Your task to perform on an android device: Open network settings Image 0: 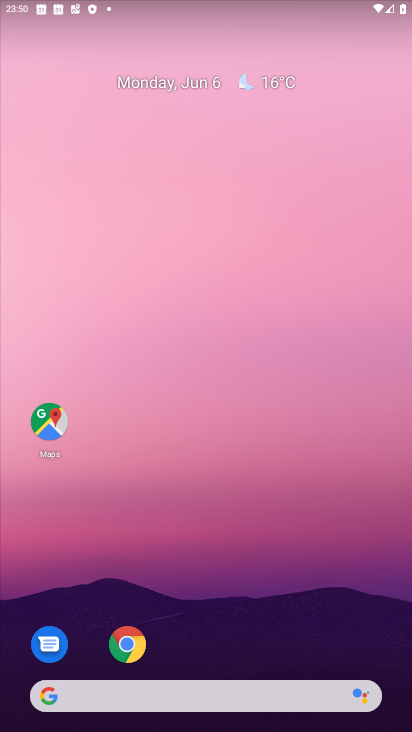
Step 0: drag from (235, 580) to (225, 41)
Your task to perform on an android device: Open network settings Image 1: 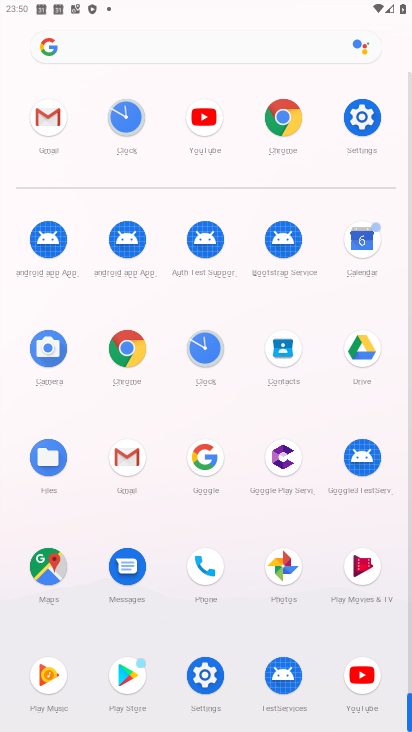
Step 1: drag from (3, 608) to (8, 330)
Your task to perform on an android device: Open network settings Image 2: 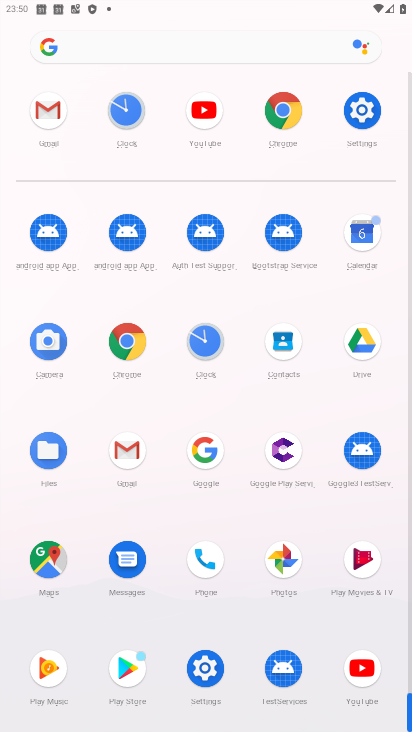
Step 2: click (203, 667)
Your task to perform on an android device: Open network settings Image 3: 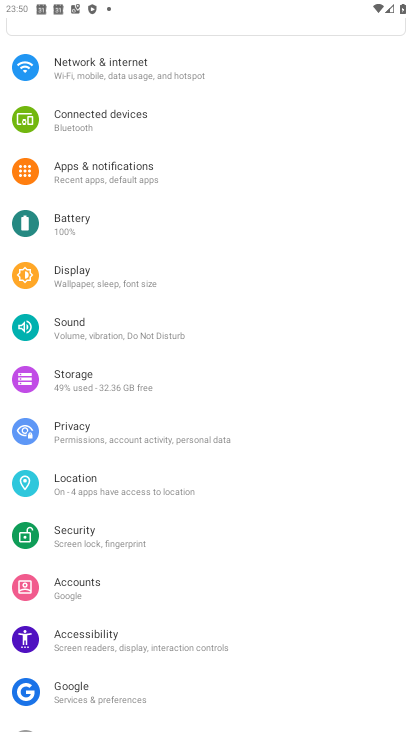
Step 3: drag from (296, 171) to (281, 628)
Your task to perform on an android device: Open network settings Image 4: 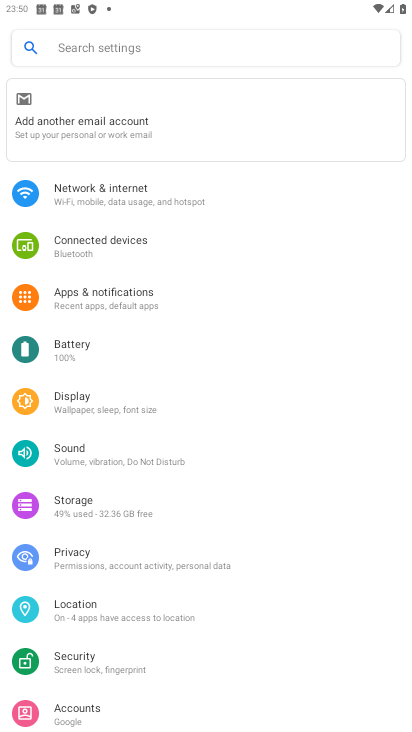
Step 4: click (158, 185)
Your task to perform on an android device: Open network settings Image 5: 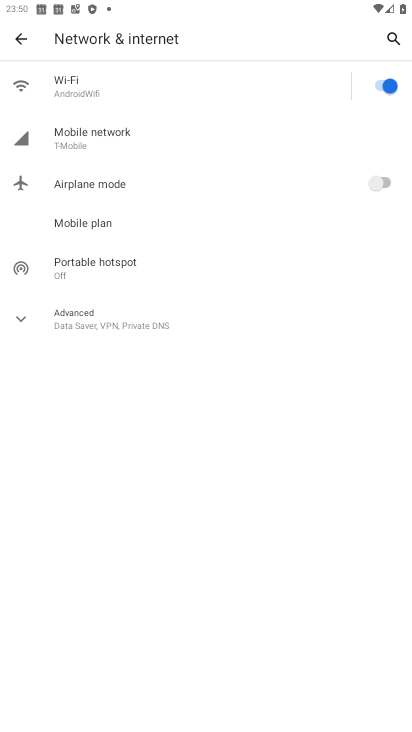
Step 5: click (115, 136)
Your task to perform on an android device: Open network settings Image 6: 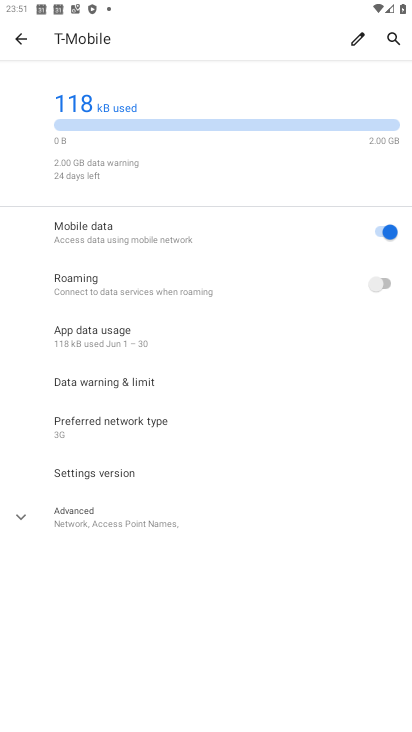
Step 6: click (19, 37)
Your task to perform on an android device: Open network settings Image 7: 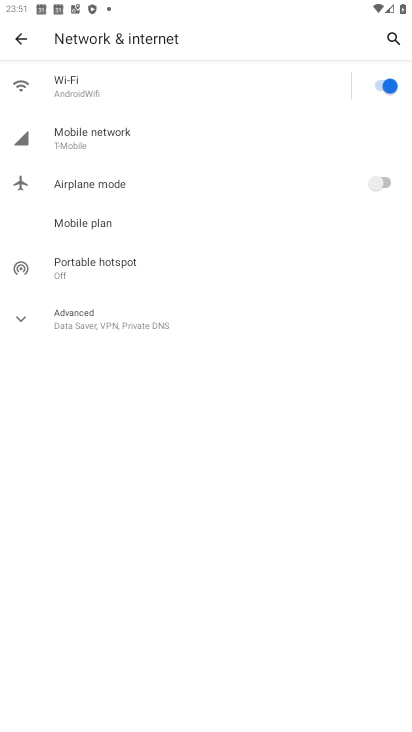
Step 7: click (10, 303)
Your task to perform on an android device: Open network settings Image 8: 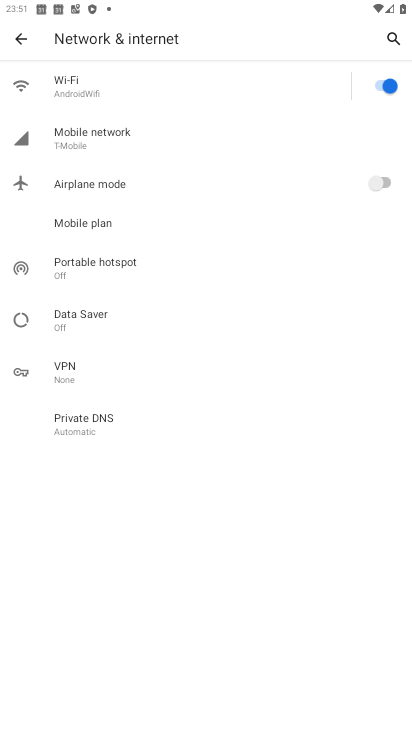
Step 8: task complete